Your task to perform on an android device: Open calendar and show me the fourth week of next month Image 0: 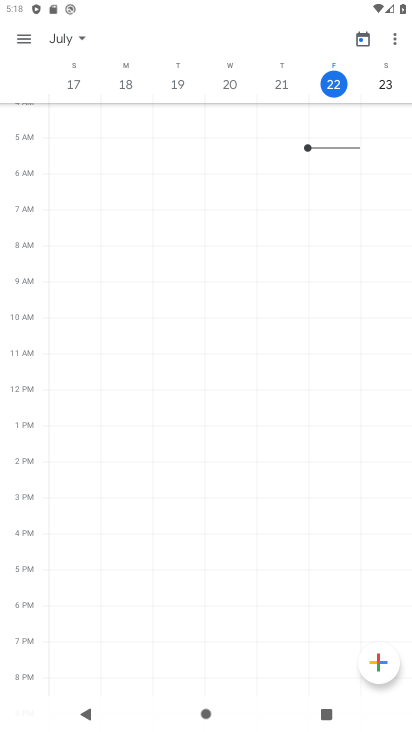
Step 0: click (71, 43)
Your task to perform on an android device: Open calendar and show me the fourth week of next month Image 1: 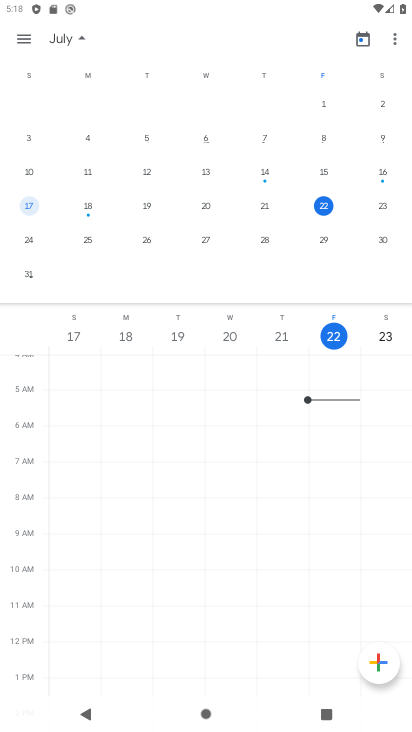
Step 1: drag from (375, 279) to (39, 231)
Your task to perform on an android device: Open calendar and show me the fourth week of next month Image 2: 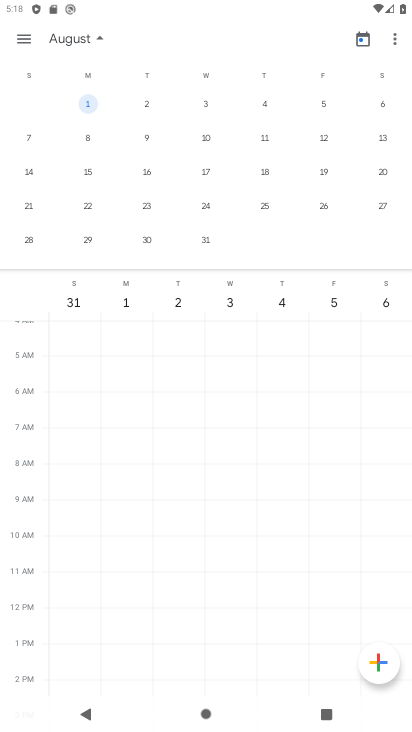
Step 2: click (154, 206)
Your task to perform on an android device: Open calendar and show me the fourth week of next month Image 3: 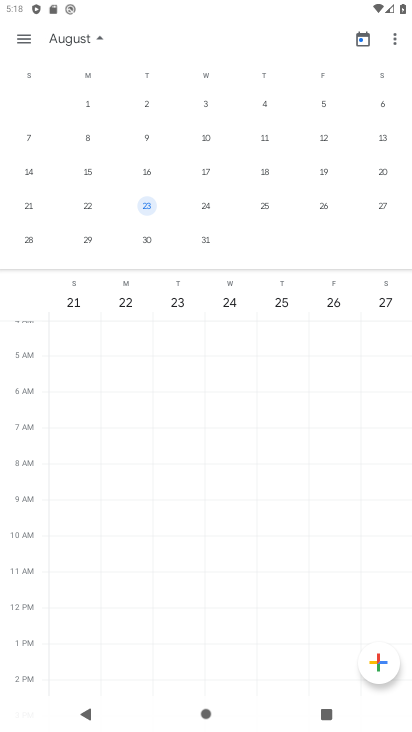
Step 3: task complete